Your task to perform on an android device: Open Maps and search for coffee Image 0: 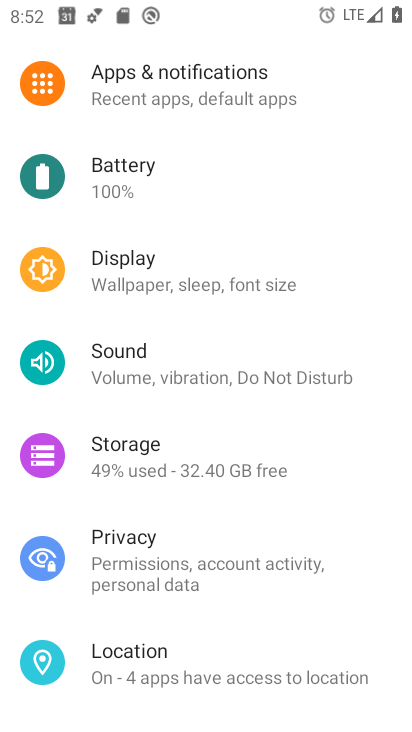
Step 0: press home button
Your task to perform on an android device: Open Maps and search for coffee Image 1: 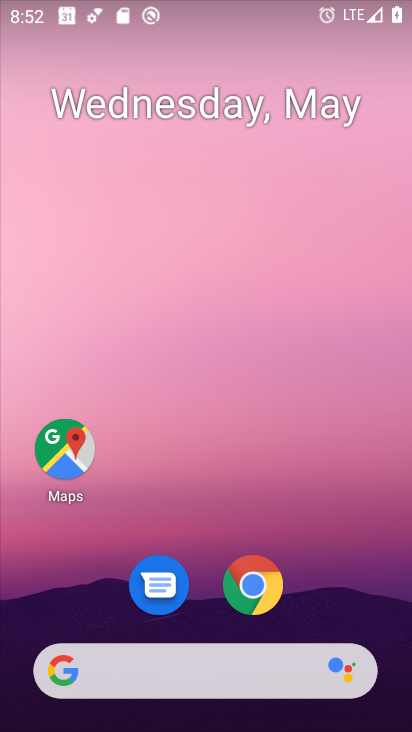
Step 1: click (67, 459)
Your task to perform on an android device: Open Maps and search for coffee Image 2: 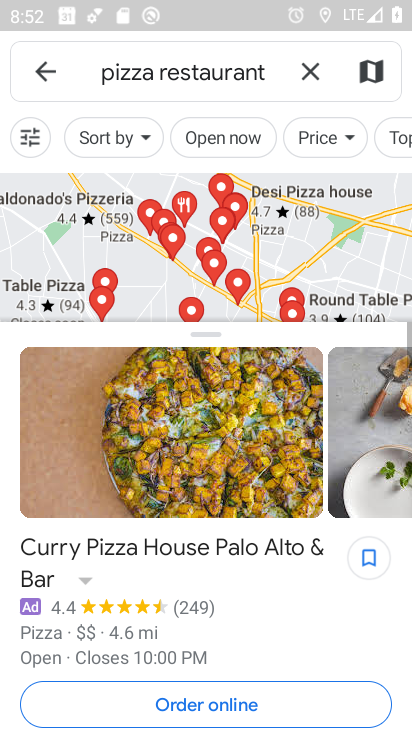
Step 2: click (307, 58)
Your task to perform on an android device: Open Maps and search for coffee Image 3: 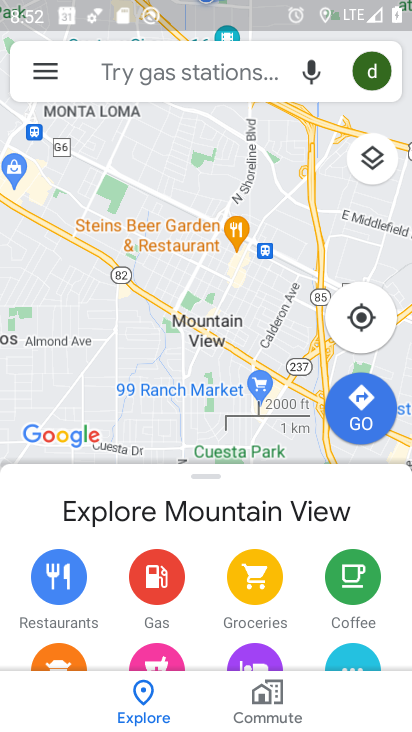
Step 3: click (193, 65)
Your task to perform on an android device: Open Maps and search for coffee Image 4: 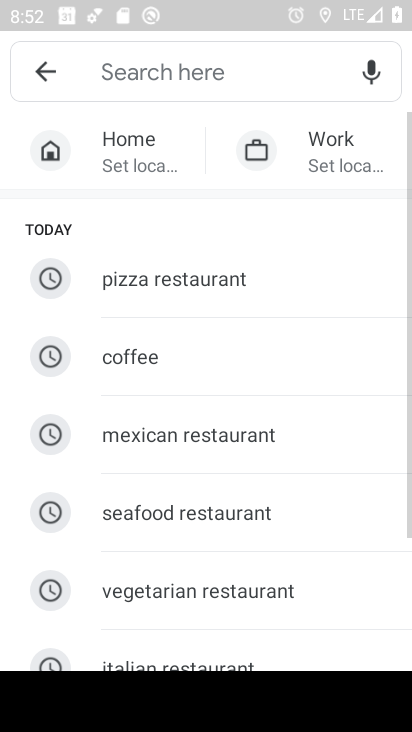
Step 4: click (138, 356)
Your task to perform on an android device: Open Maps and search for coffee Image 5: 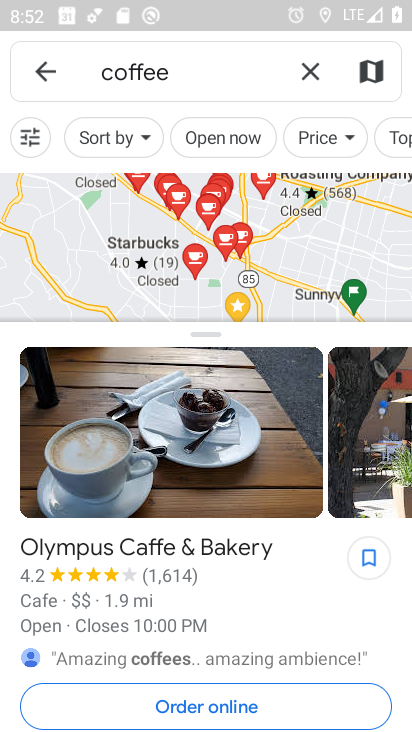
Step 5: task complete